Your task to perform on an android device: add a label to a message in the gmail app Image 0: 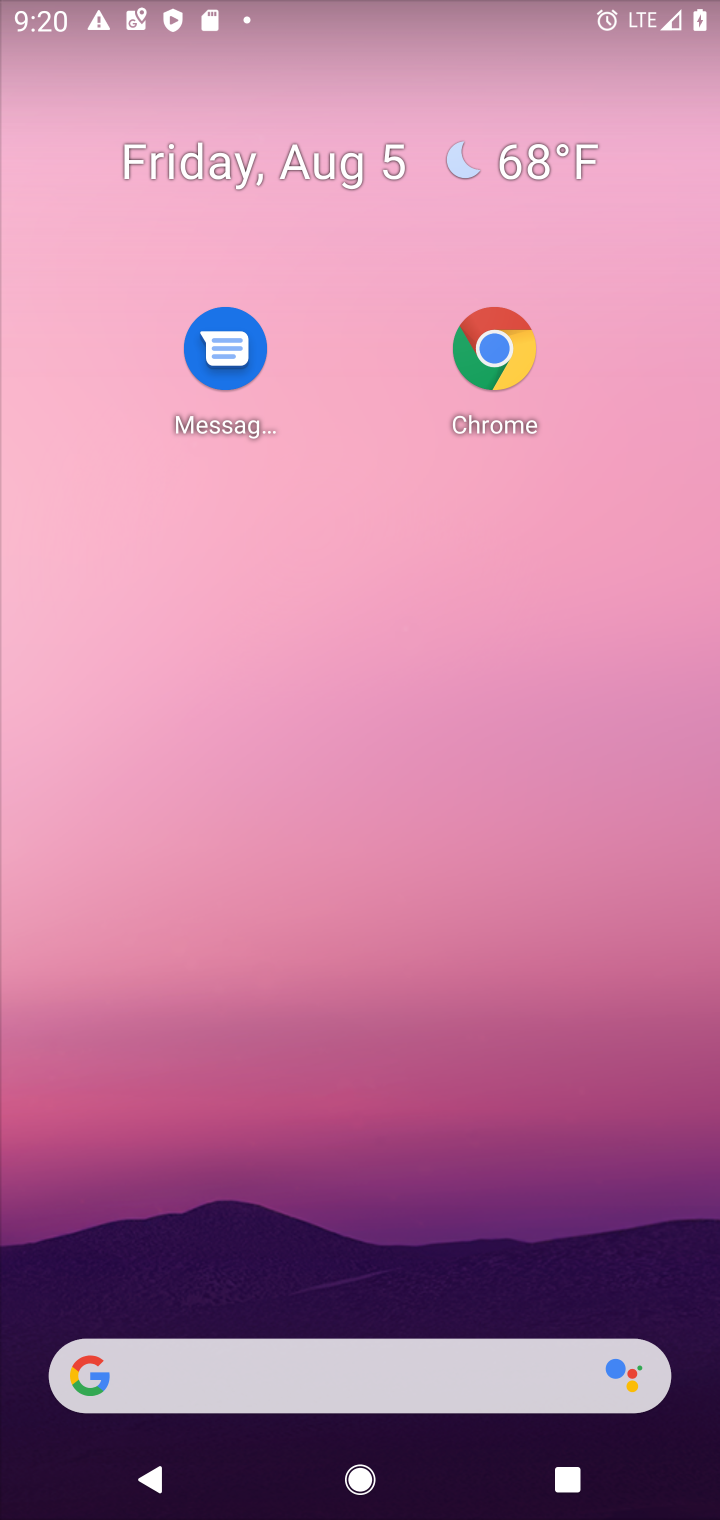
Step 0: press home button
Your task to perform on an android device: add a label to a message in the gmail app Image 1: 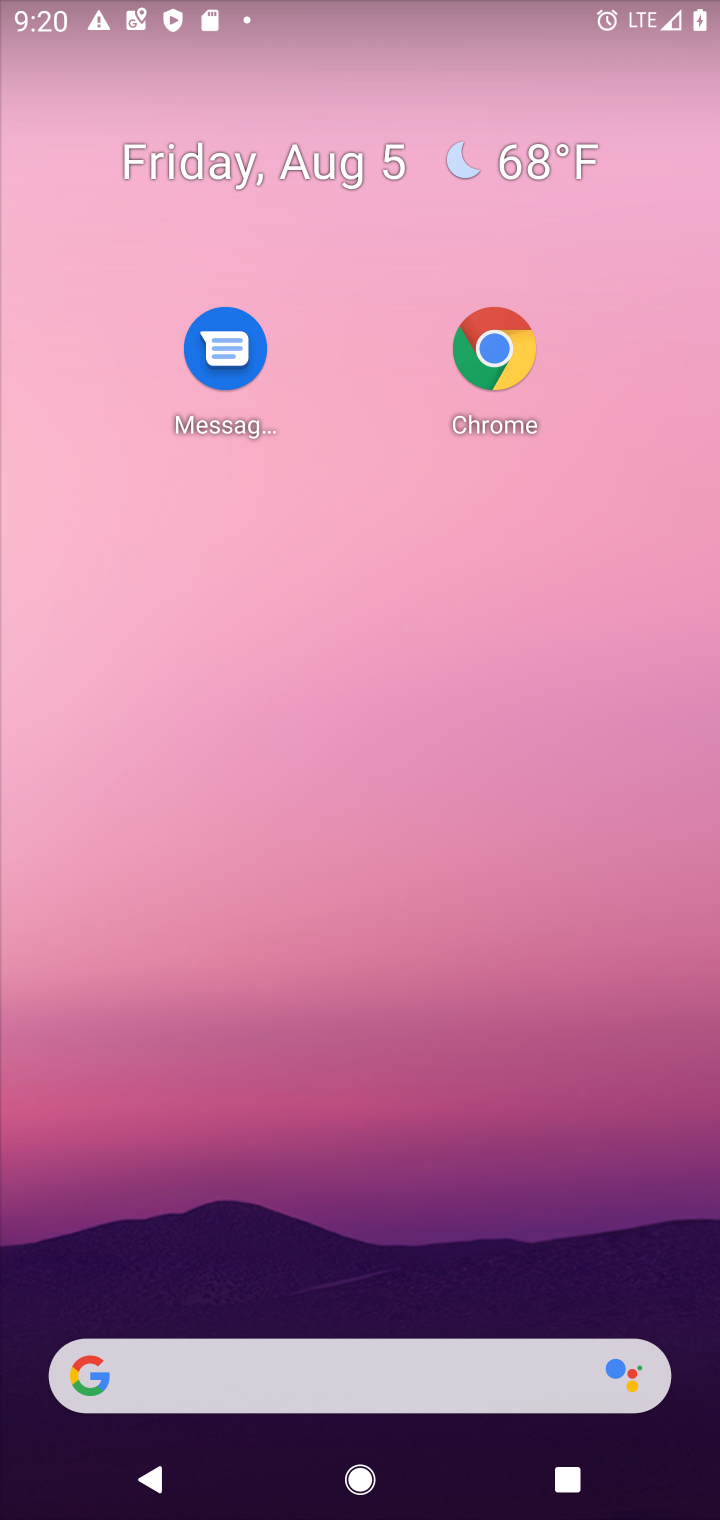
Step 1: drag from (453, 1442) to (521, 214)
Your task to perform on an android device: add a label to a message in the gmail app Image 2: 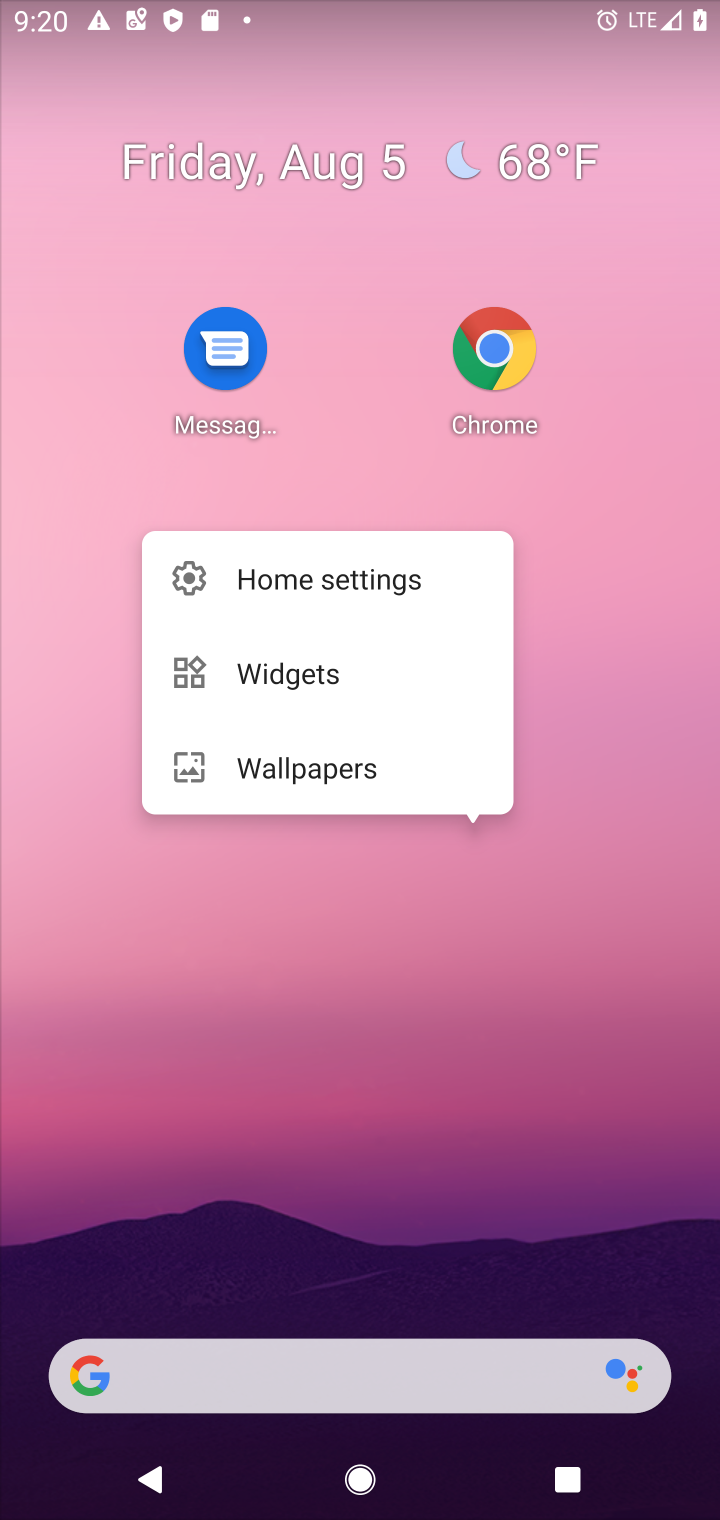
Step 2: click (373, 976)
Your task to perform on an android device: add a label to a message in the gmail app Image 3: 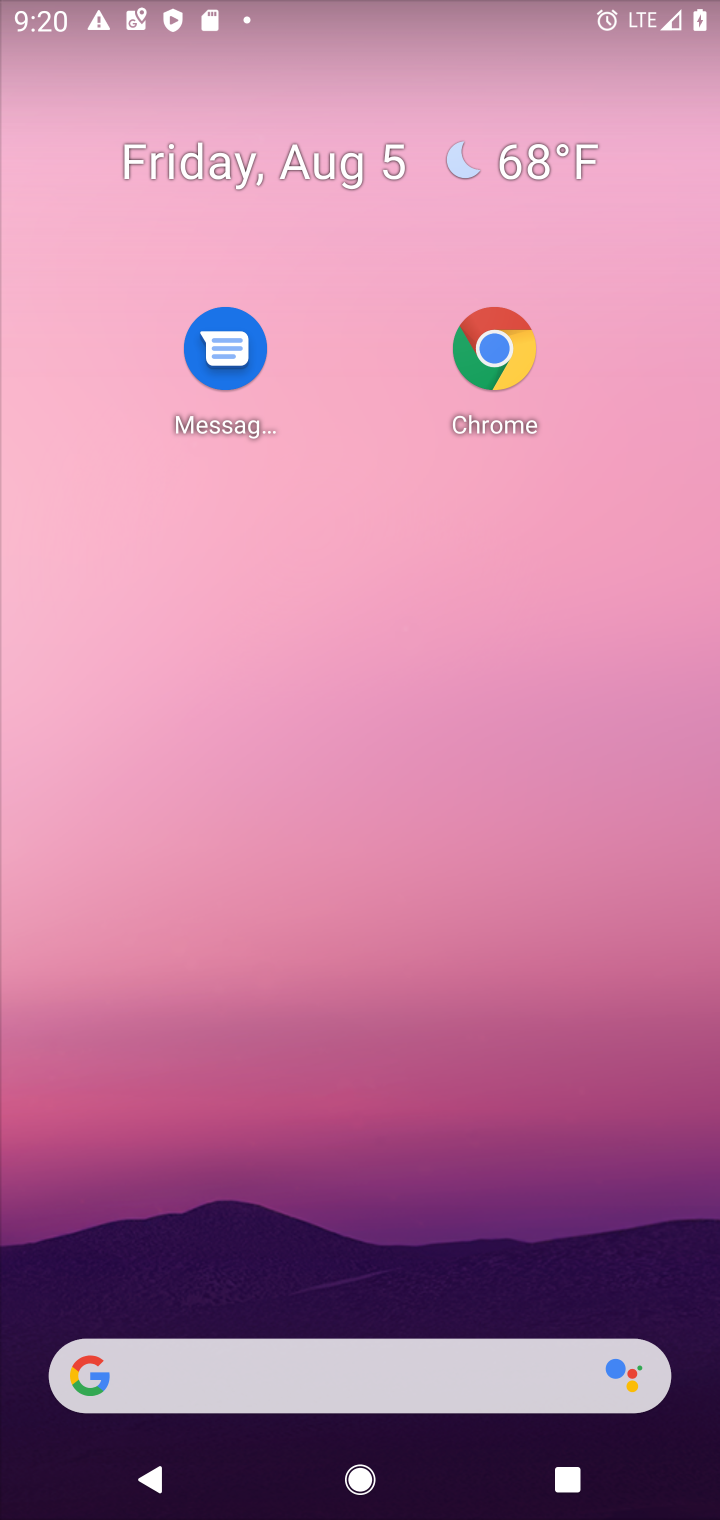
Step 3: drag from (466, 1198) to (312, 319)
Your task to perform on an android device: add a label to a message in the gmail app Image 4: 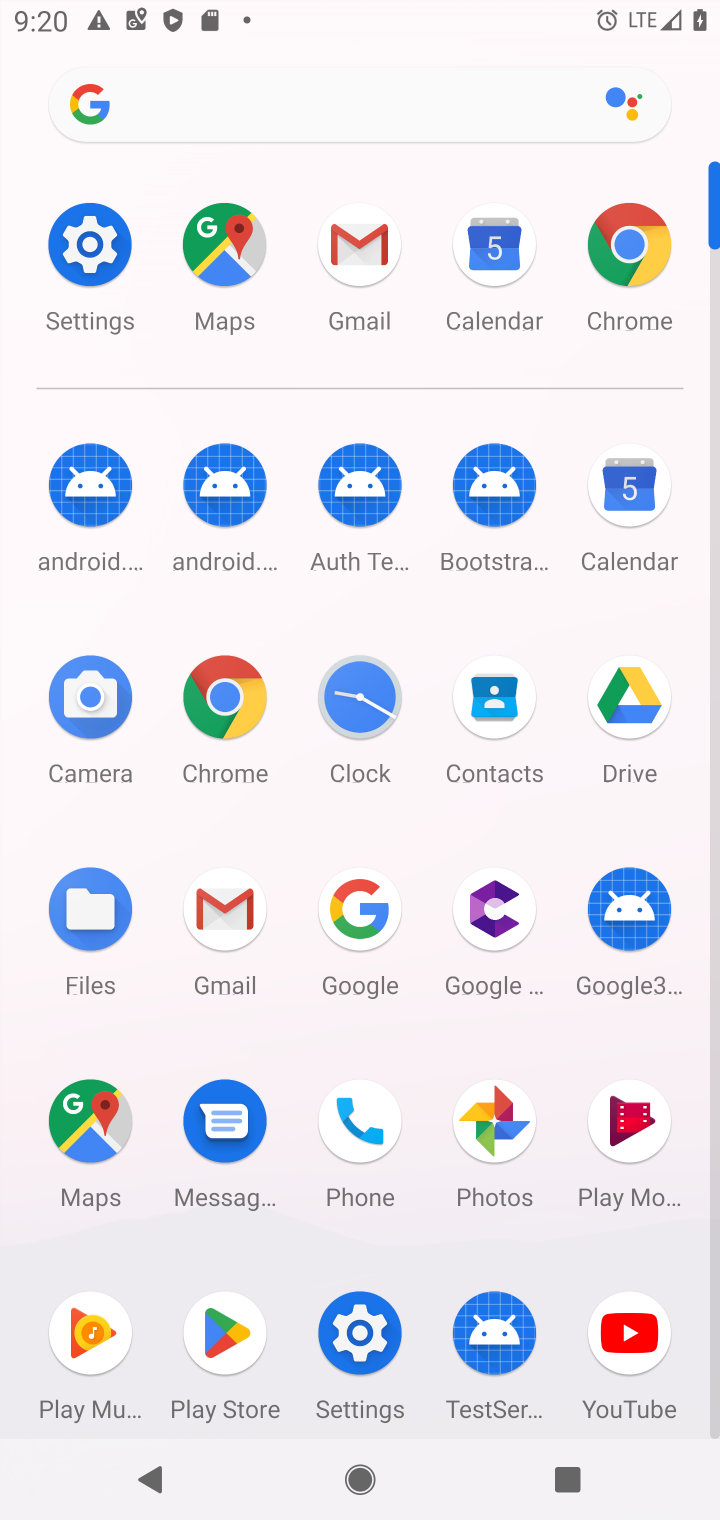
Step 4: click (233, 879)
Your task to perform on an android device: add a label to a message in the gmail app Image 5: 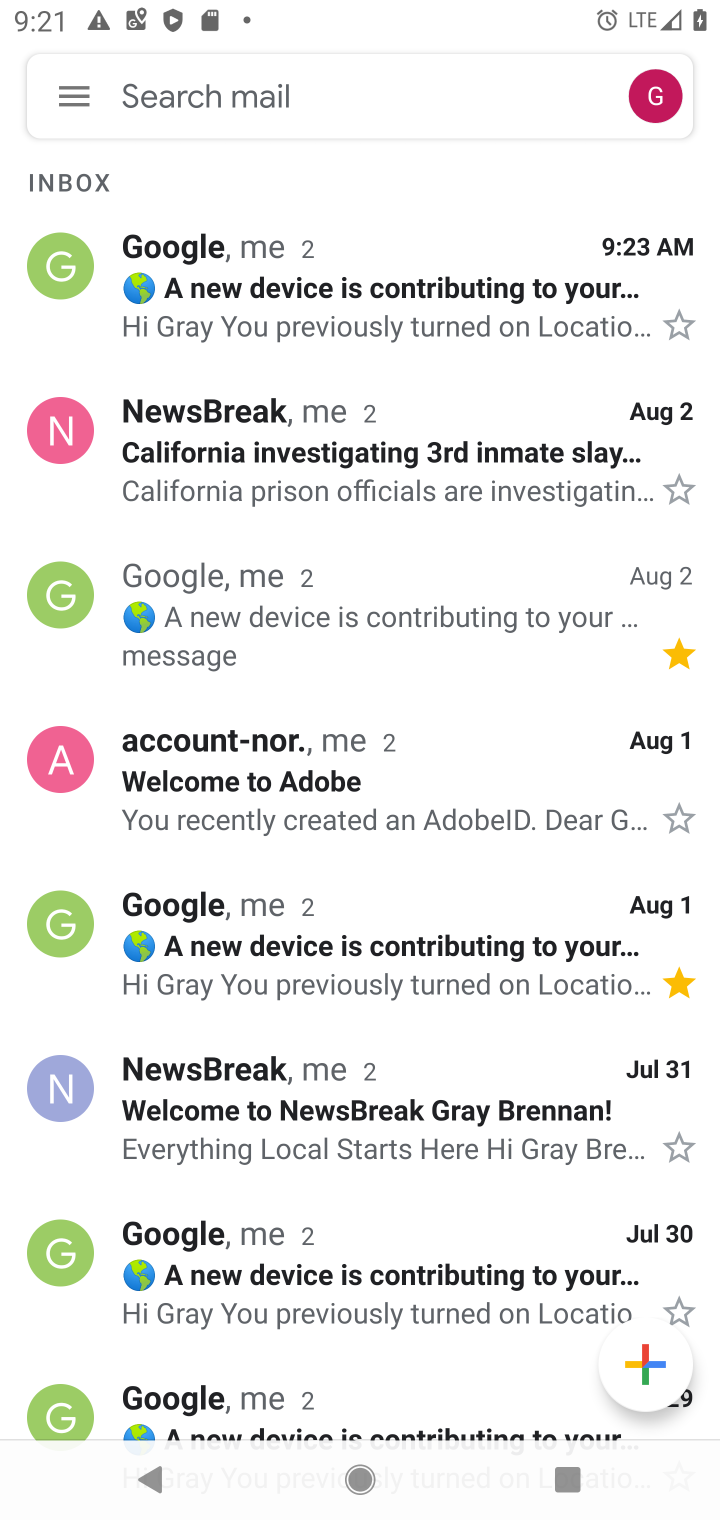
Step 5: click (57, 109)
Your task to perform on an android device: add a label to a message in the gmail app Image 6: 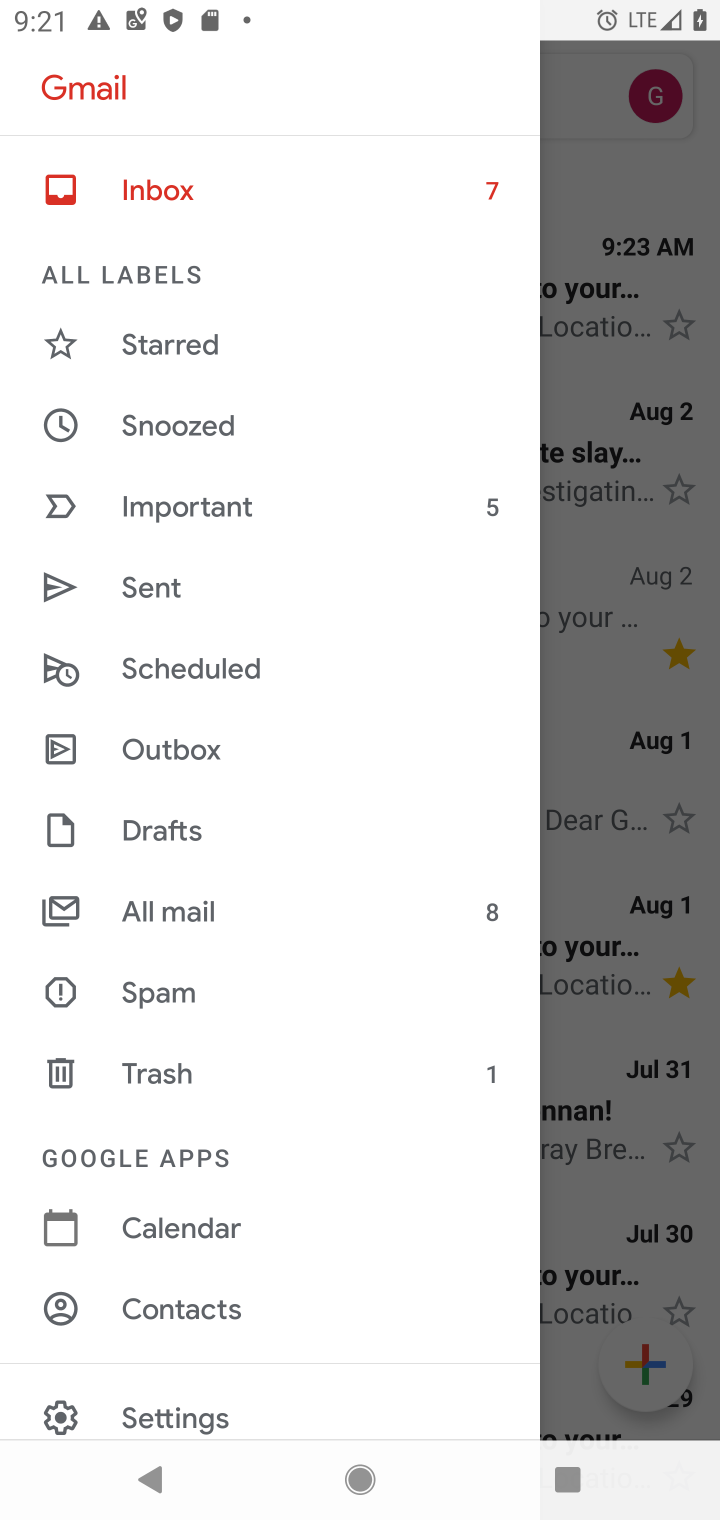
Step 6: click (190, 1393)
Your task to perform on an android device: add a label to a message in the gmail app Image 7: 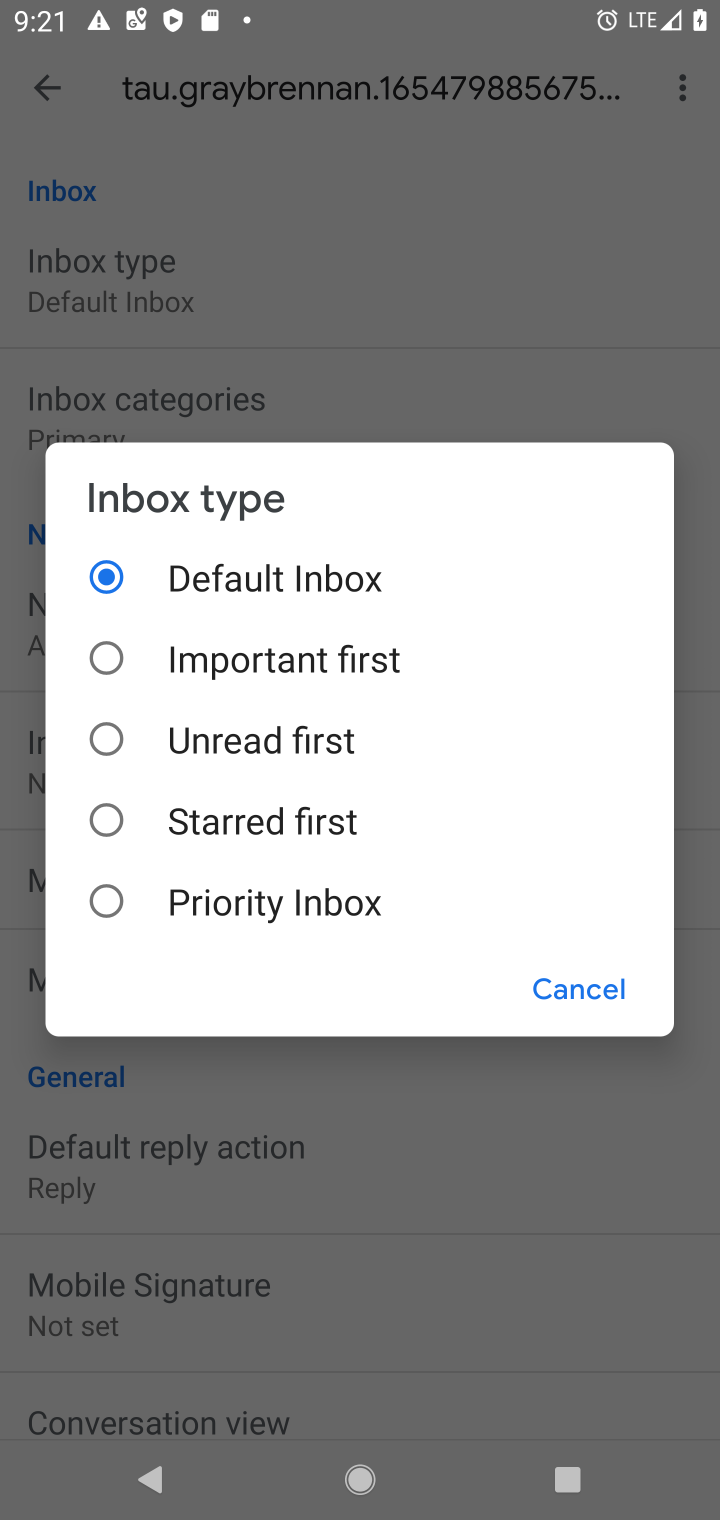
Step 7: click (599, 996)
Your task to perform on an android device: add a label to a message in the gmail app Image 8: 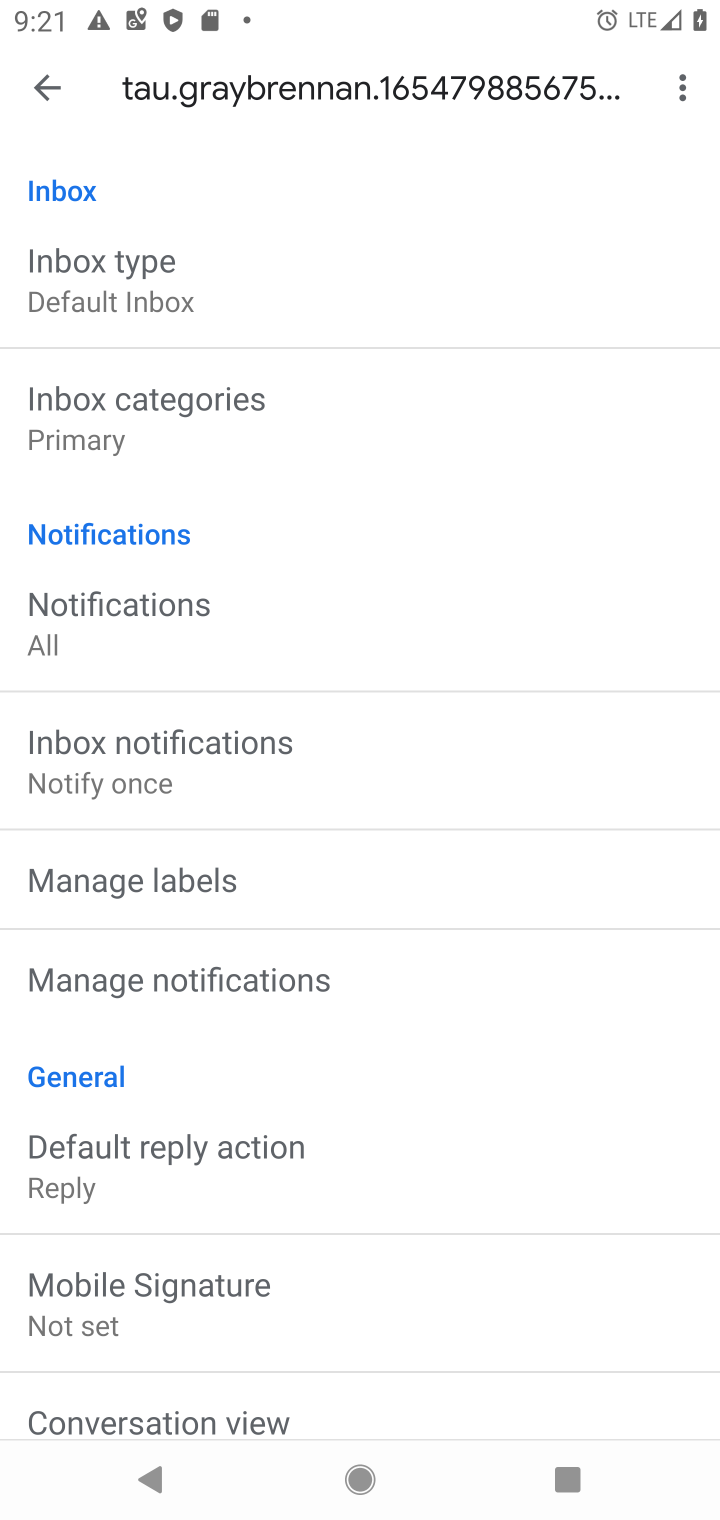
Step 8: click (190, 894)
Your task to perform on an android device: add a label to a message in the gmail app Image 9: 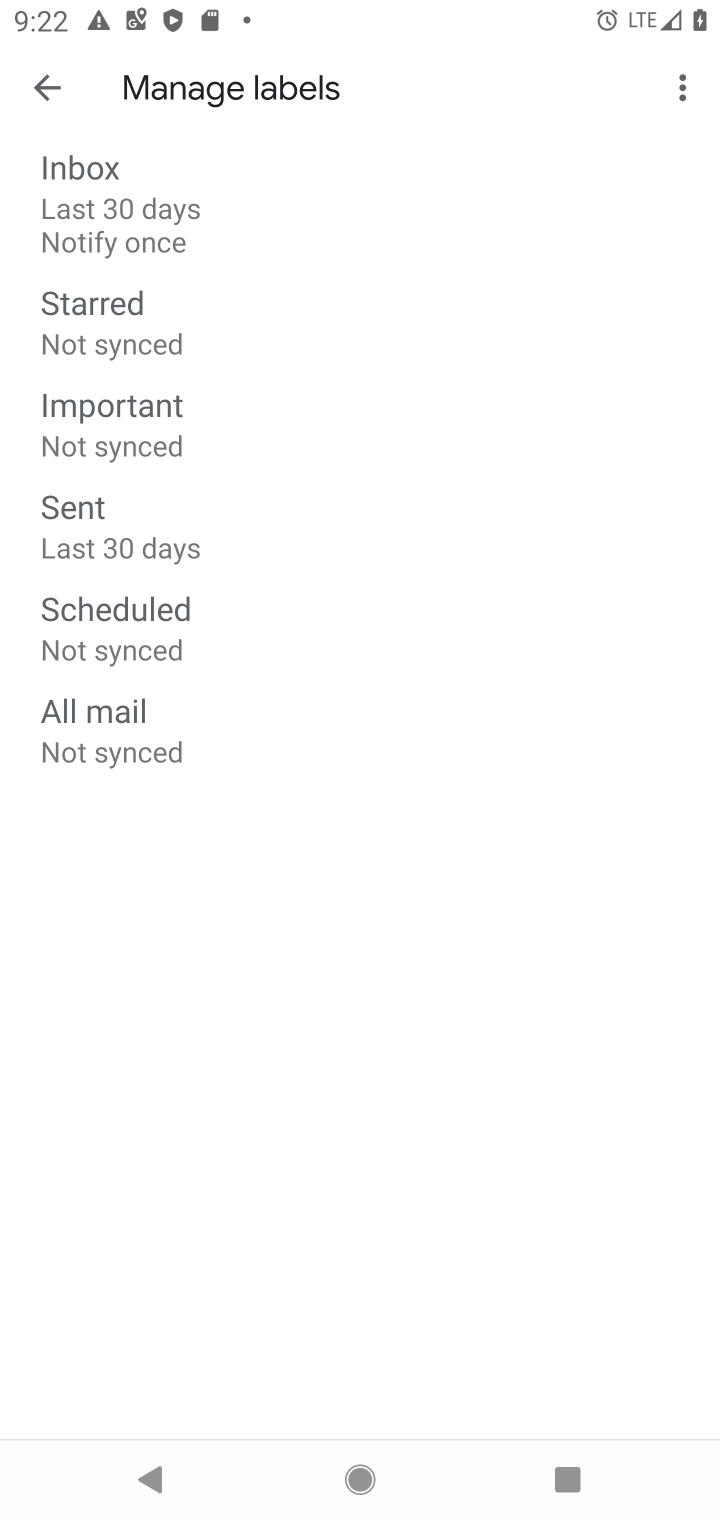
Step 9: task complete